Your task to perform on an android device: Is it going to rain today? Image 0: 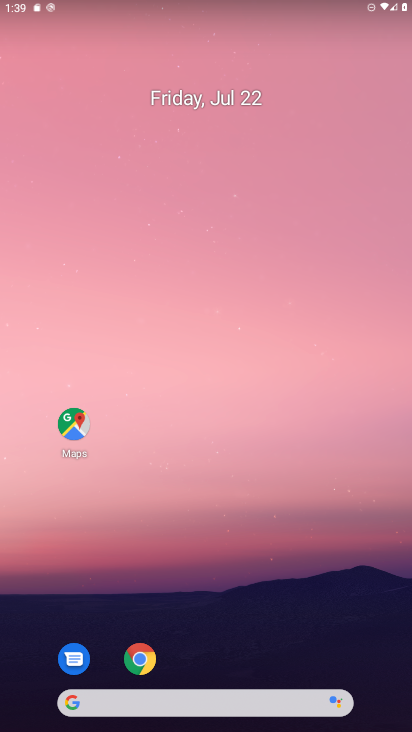
Step 0: drag from (184, 707) to (251, 116)
Your task to perform on an android device: Is it going to rain today? Image 1: 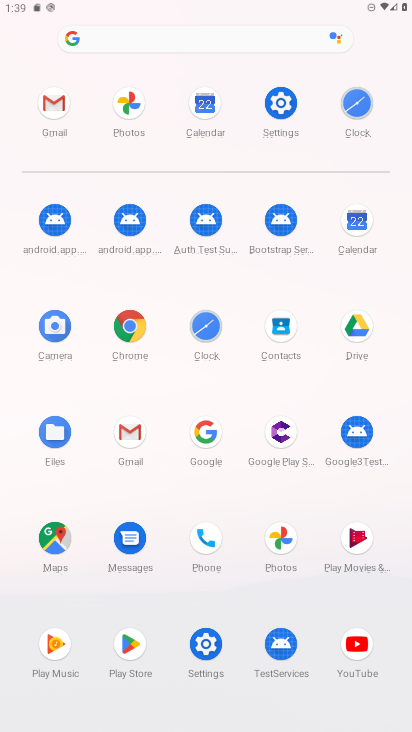
Step 1: click (205, 423)
Your task to perform on an android device: Is it going to rain today? Image 2: 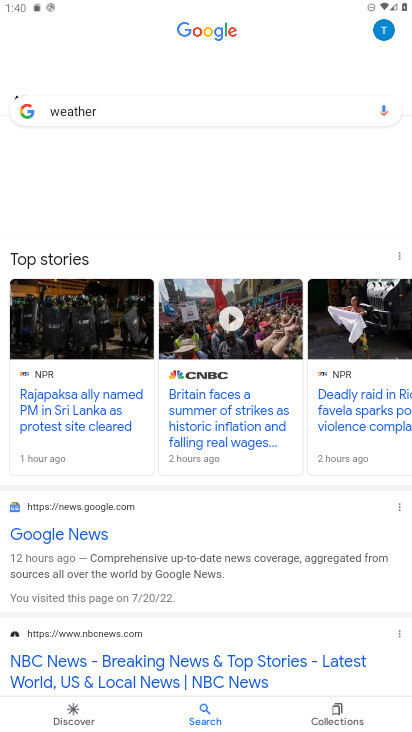
Step 2: click (151, 94)
Your task to perform on an android device: Is it going to rain today? Image 3: 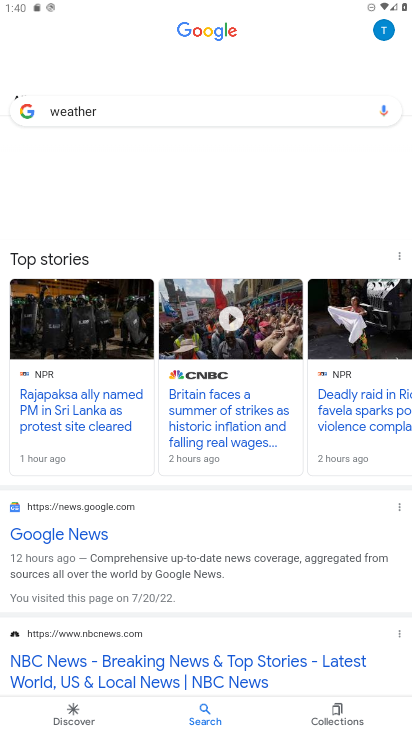
Step 3: click (152, 111)
Your task to perform on an android device: Is it going to rain today? Image 4: 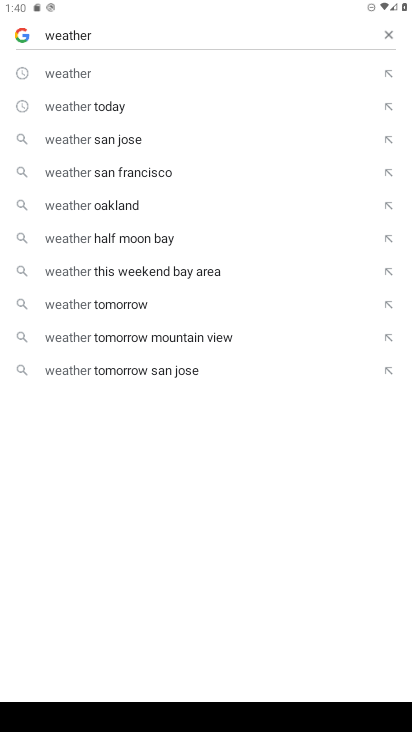
Step 4: click (95, 101)
Your task to perform on an android device: Is it going to rain today? Image 5: 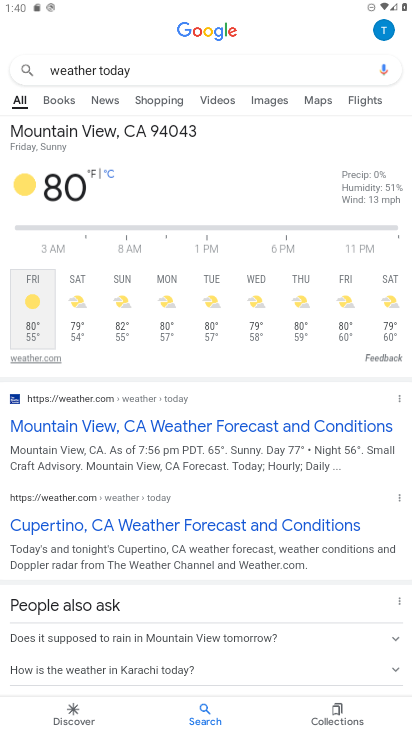
Step 5: task complete